Your task to perform on an android device: Check the weather Image 0: 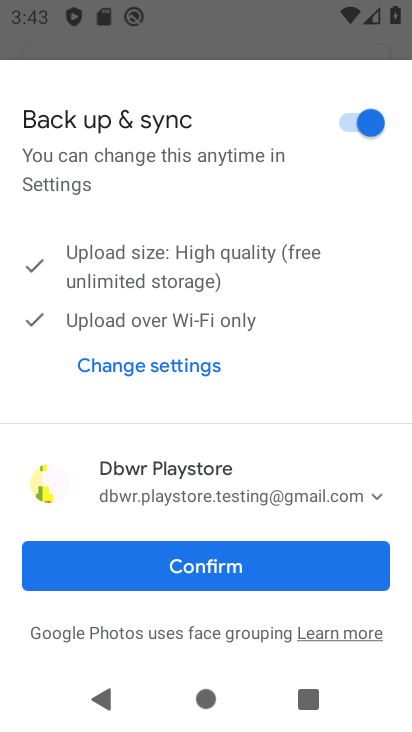
Step 0: press home button
Your task to perform on an android device: Check the weather Image 1: 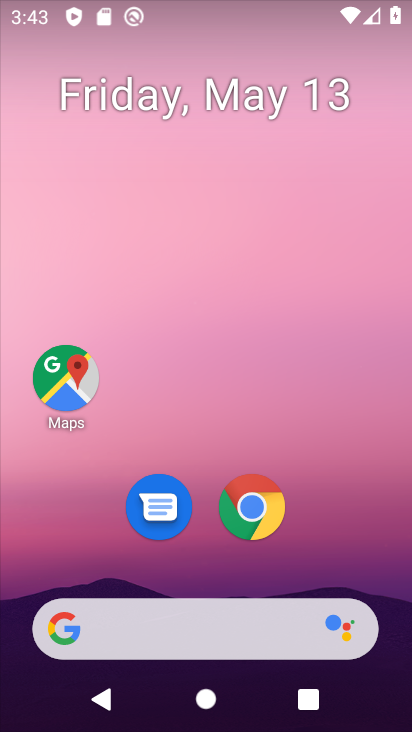
Step 1: drag from (347, 534) to (313, 119)
Your task to perform on an android device: Check the weather Image 2: 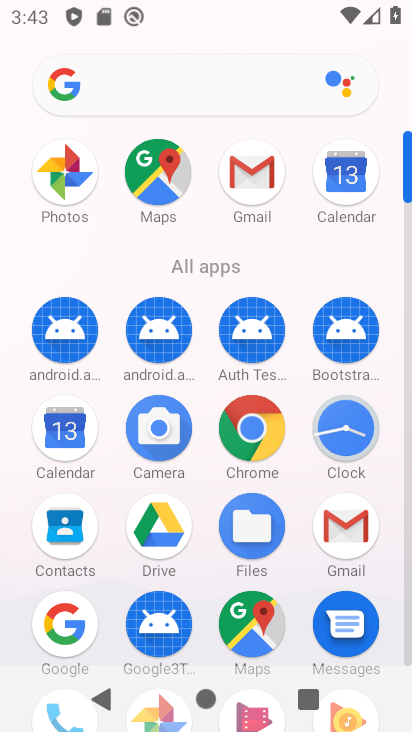
Step 2: click (259, 428)
Your task to perform on an android device: Check the weather Image 3: 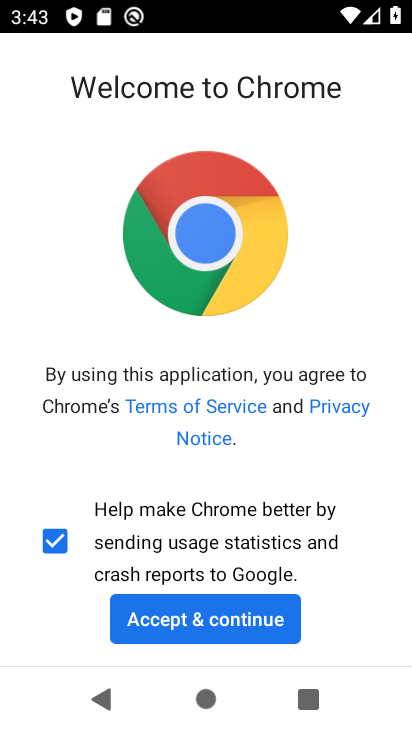
Step 3: click (184, 625)
Your task to perform on an android device: Check the weather Image 4: 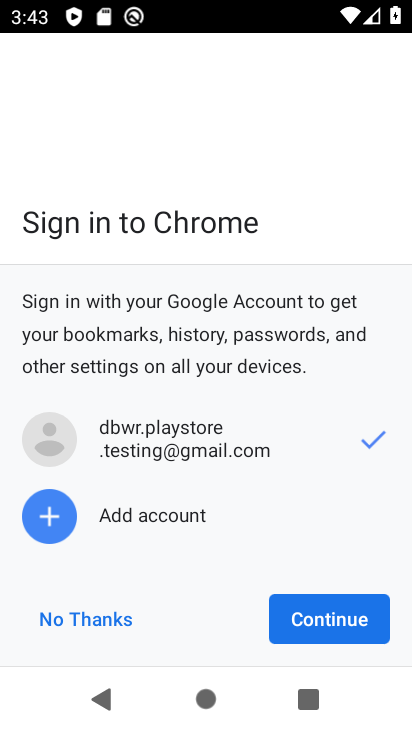
Step 4: click (339, 614)
Your task to perform on an android device: Check the weather Image 5: 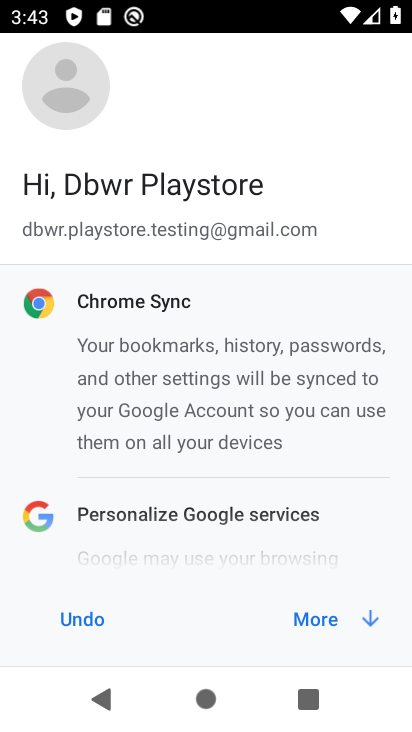
Step 5: click (323, 633)
Your task to perform on an android device: Check the weather Image 6: 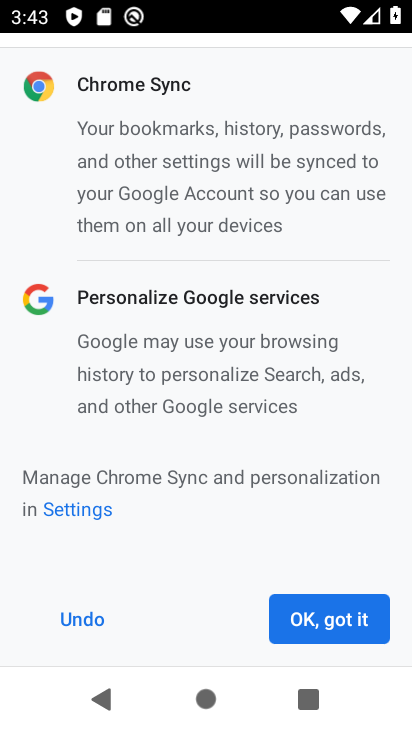
Step 6: click (323, 624)
Your task to perform on an android device: Check the weather Image 7: 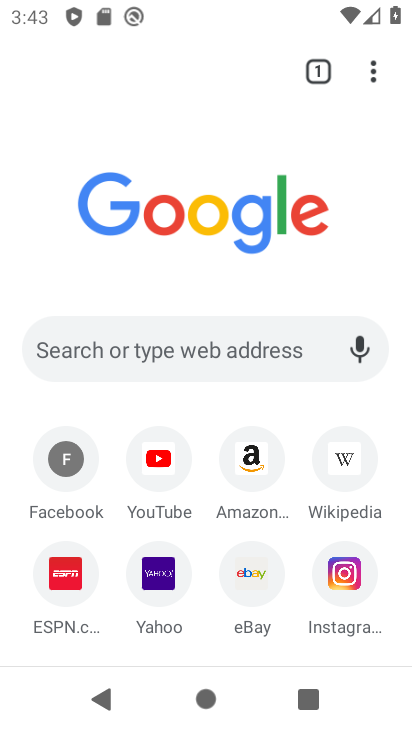
Step 7: click (212, 338)
Your task to perform on an android device: Check the weather Image 8: 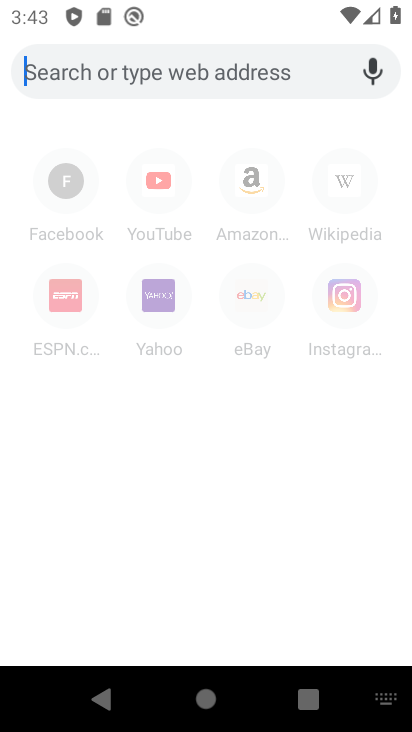
Step 8: type "weather"
Your task to perform on an android device: Check the weather Image 9: 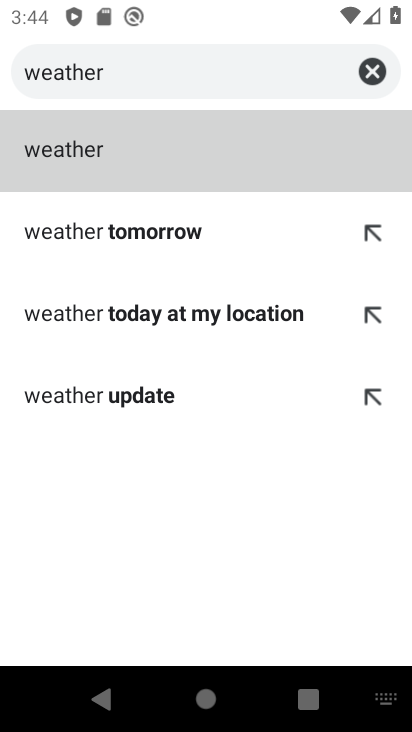
Step 9: click (94, 160)
Your task to perform on an android device: Check the weather Image 10: 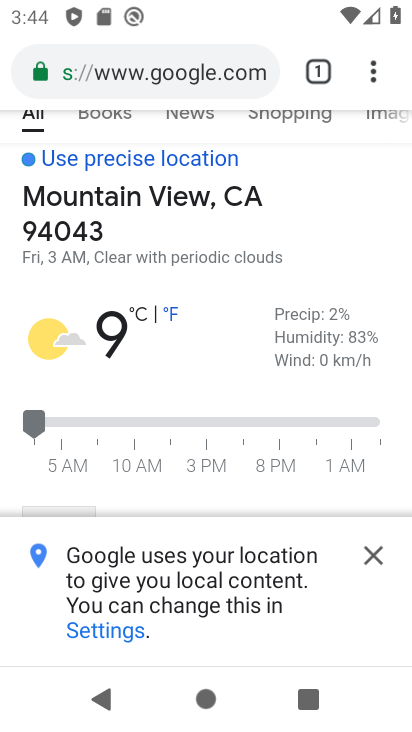
Step 10: task complete